Your task to perform on an android device: Search for Italian restaurants on Maps Image 0: 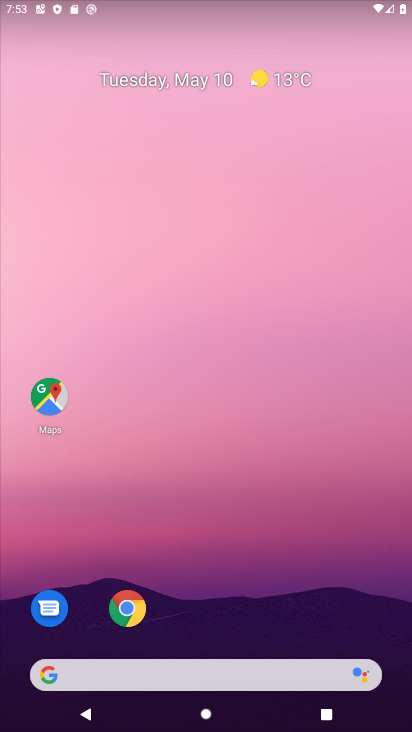
Step 0: drag from (269, 618) to (310, 139)
Your task to perform on an android device: Search for Italian restaurants on Maps Image 1: 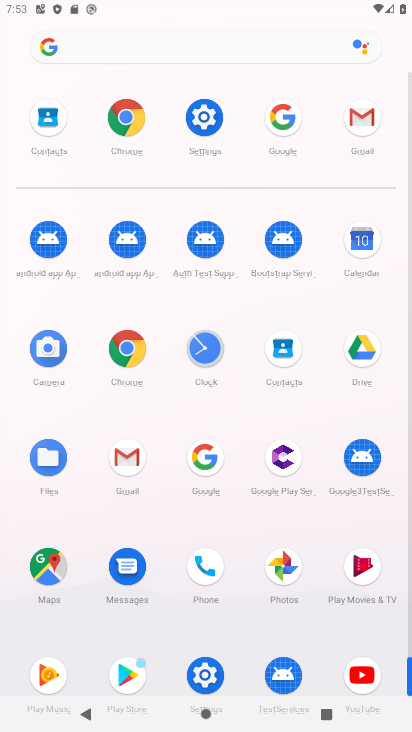
Step 1: click (45, 593)
Your task to perform on an android device: Search for Italian restaurants on Maps Image 2: 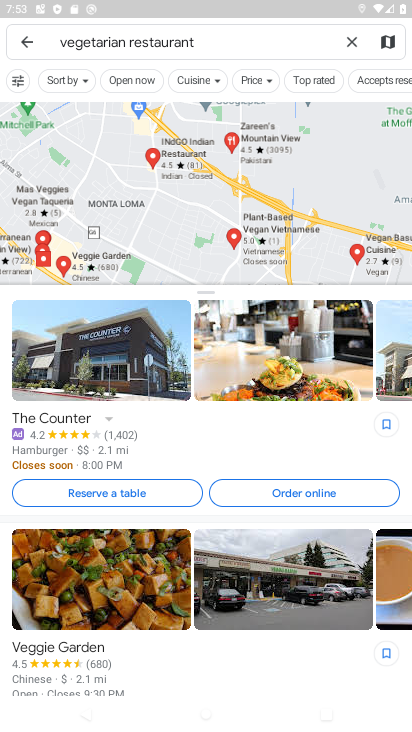
Step 2: click (355, 45)
Your task to perform on an android device: Search for Italian restaurants on Maps Image 3: 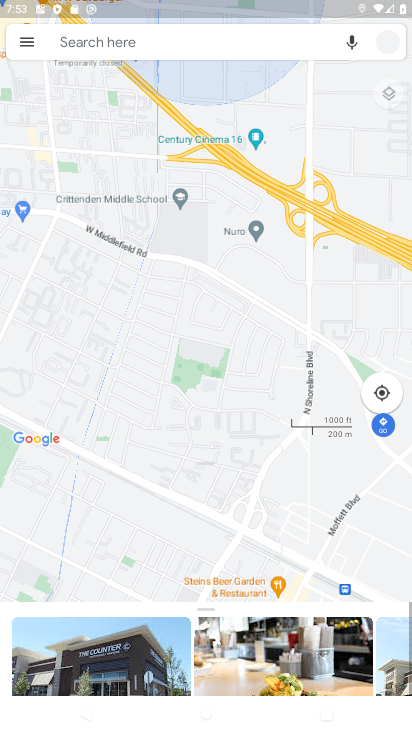
Step 3: click (172, 41)
Your task to perform on an android device: Search for Italian restaurants on Maps Image 4: 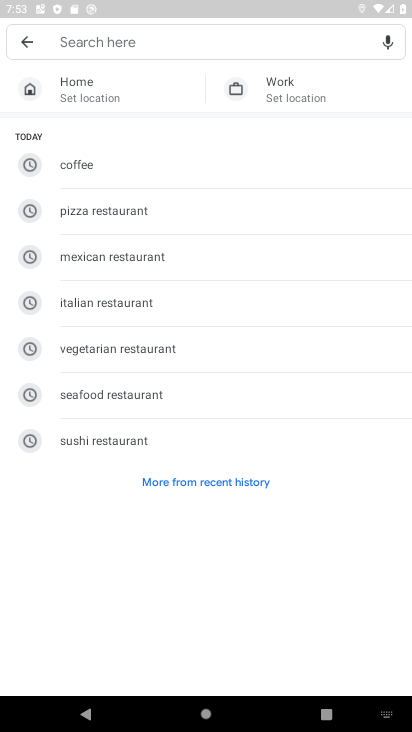
Step 4: click (144, 317)
Your task to perform on an android device: Search for Italian restaurants on Maps Image 5: 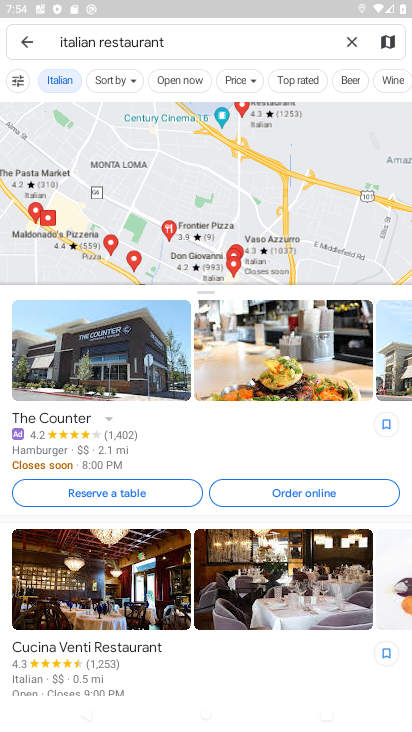
Step 5: task complete